Your task to perform on an android device: change timer sound Image 0: 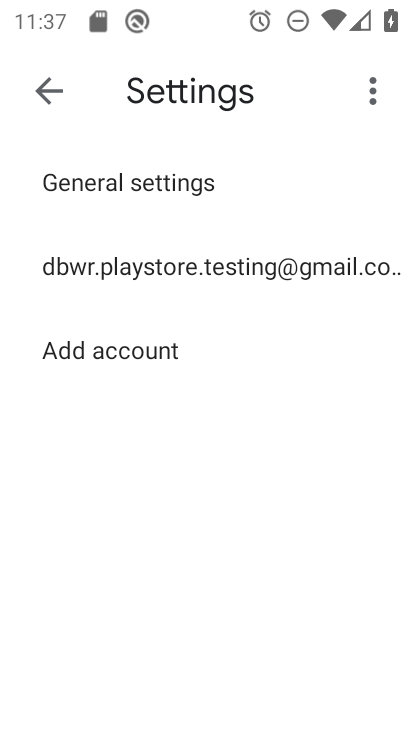
Step 0: press home button
Your task to perform on an android device: change timer sound Image 1: 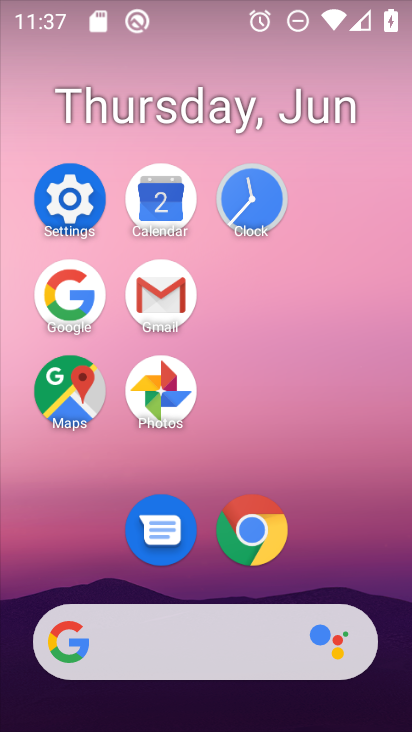
Step 1: click (258, 204)
Your task to perform on an android device: change timer sound Image 2: 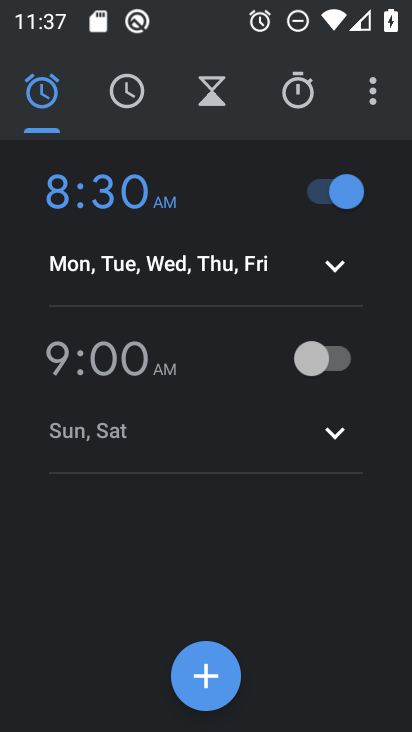
Step 2: click (368, 93)
Your task to perform on an android device: change timer sound Image 3: 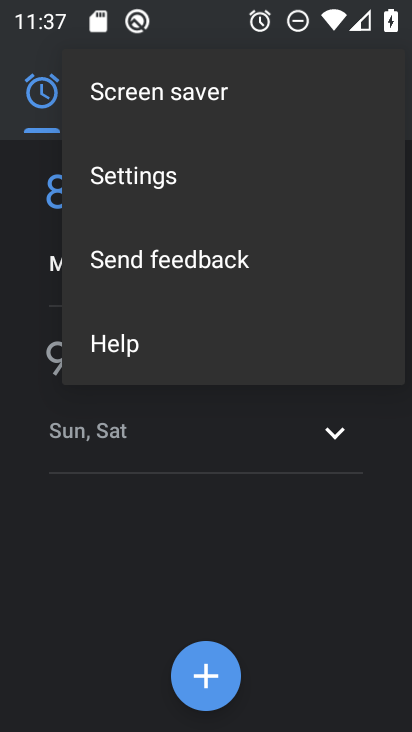
Step 3: click (216, 189)
Your task to perform on an android device: change timer sound Image 4: 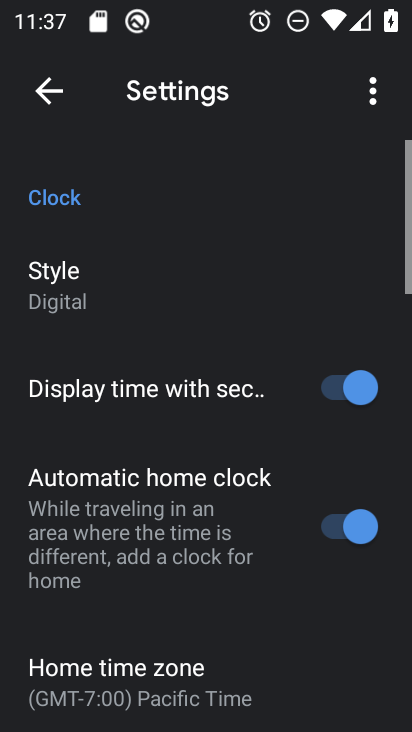
Step 4: drag from (197, 471) to (210, 157)
Your task to perform on an android device: change timer sound Image 5: 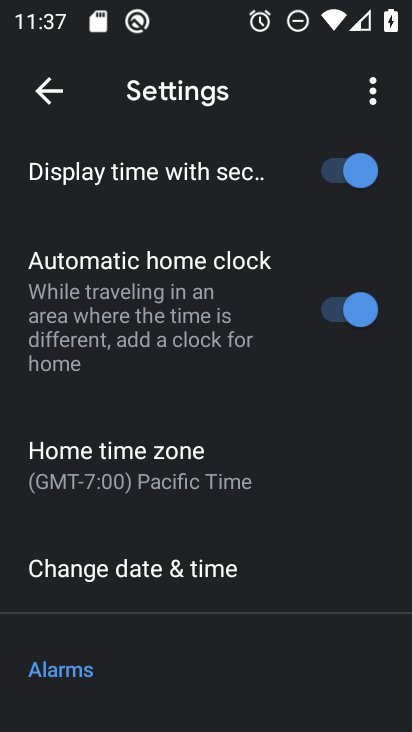
Step 5: drag from (137, 544) to (159, 235)
Your task to perform on an android device: change timer sound Image 6: 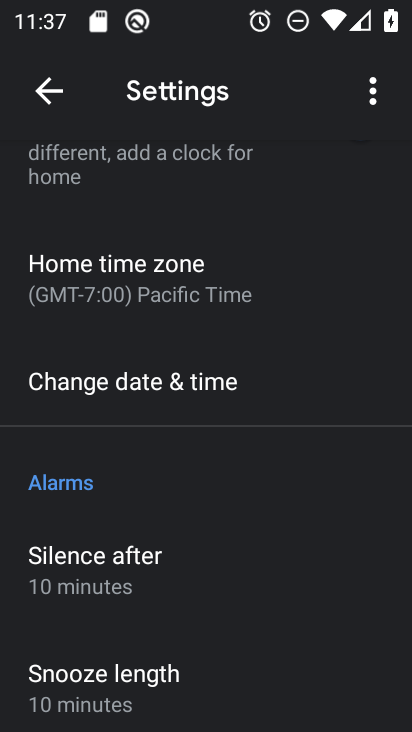
Step 6: drag from (185, 654) to (226, 338)
Your task to perform on an android device: change timer sound Image 7: 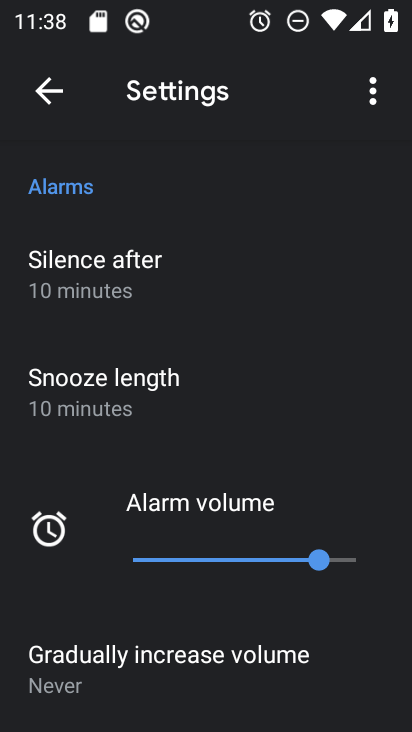
Step 7: drag from (153, 627) to (201, 334)
Your task to perform on an android device: change timer sound Image 8: 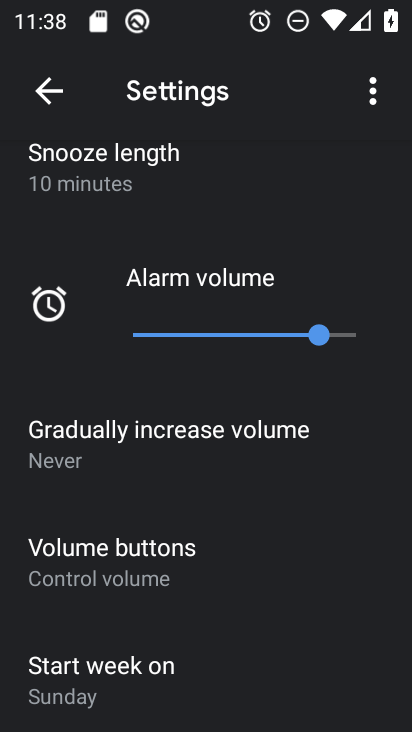
Step 8: drag from (160, 636) to (187, 302)
Your task to perform on an android device: change timer sound Image 9: 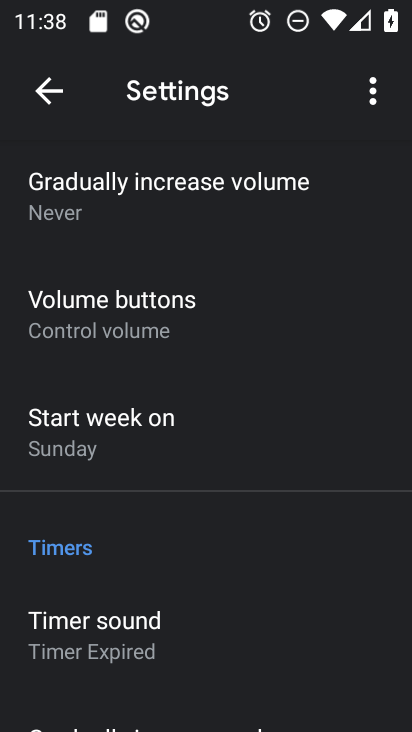
Step 9: click (160, 638)
Your task to perform on an android device: change timer sound Image 10: 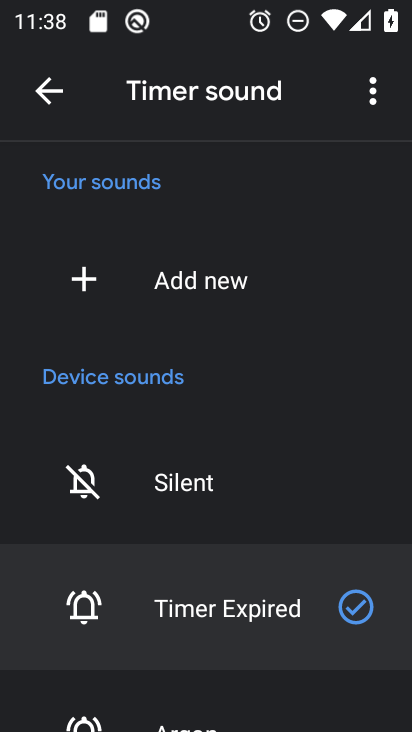
Step 10: click (192, 707)
Your task to perform on an android device: change timer sound Image 11: 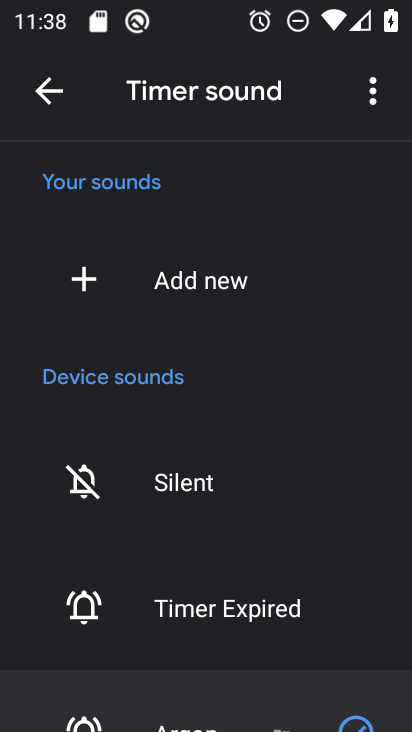
Step 11: task complete